Your task to perform on an android device: Open Google Chrome and open the bookmarks view Image 0: 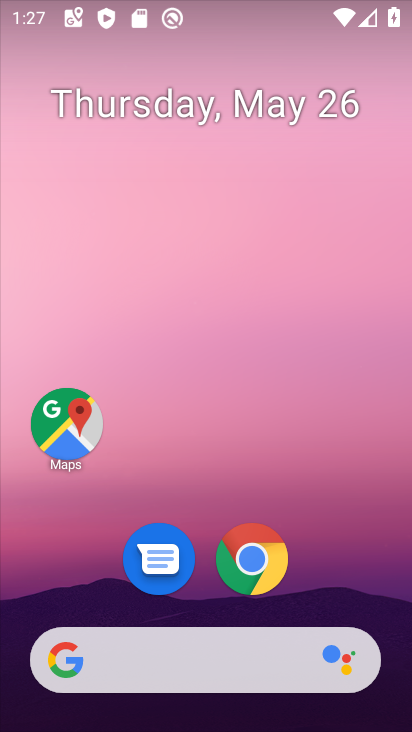
Step 0: press home button
Your task to perform on an android device: Open Google Chrome and open the bookmarks view Image 1: 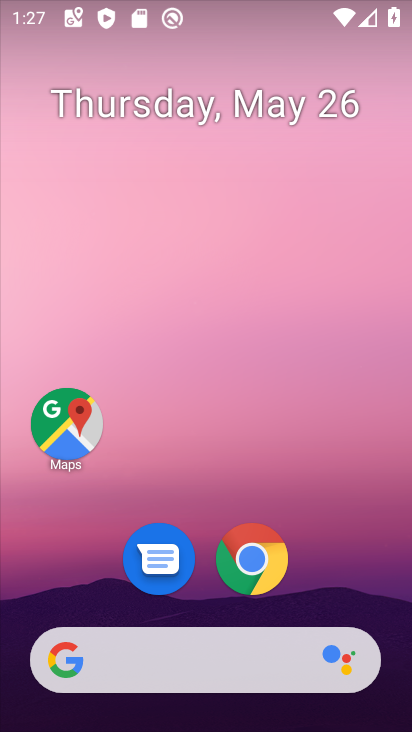
Step 1: click (244, 567)
Your task to perform on an android device: Open Google Chrome and open the bookmarks view Image 2: 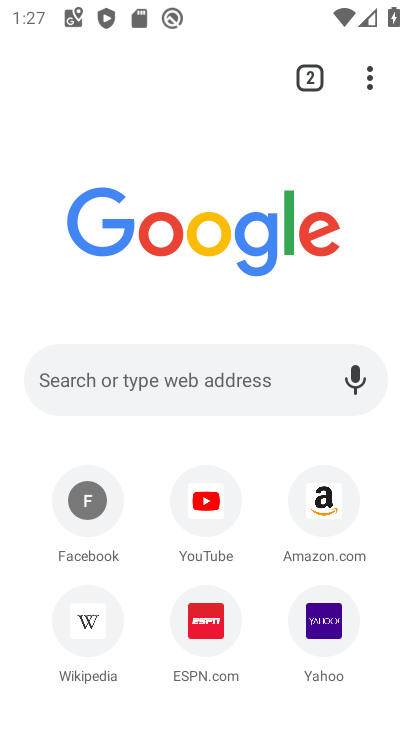
Step 2: task complete